Your task to perform on an android device: turn off notifications settings in the gmail app Image 0: 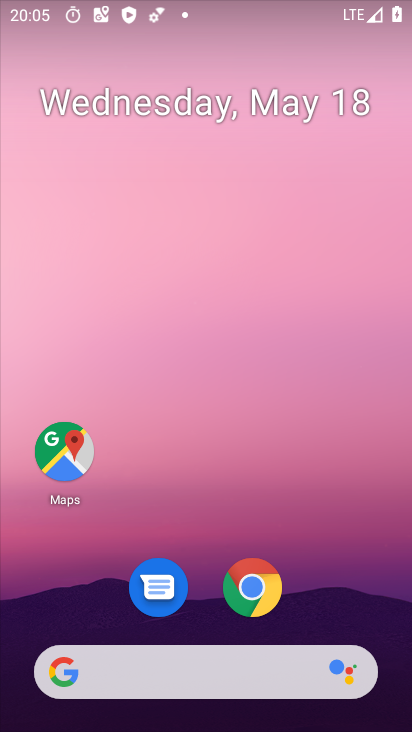
Step 0: drag from (207, 619) to (258, 31)
Your task to perform on an android device: turn off notifications settings in the gmail app Image 1: 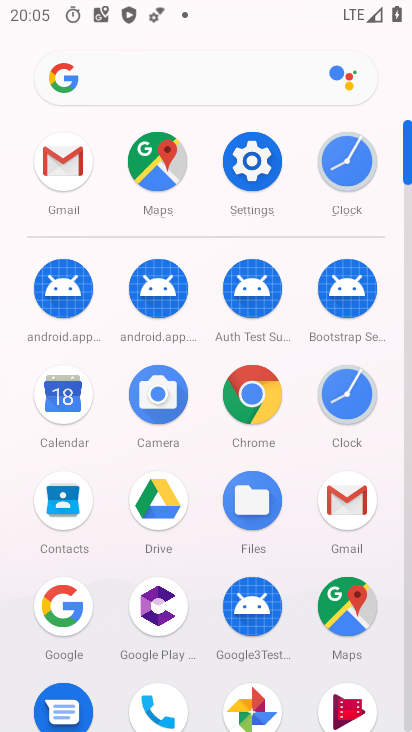
Step 1: click (64, 175)
Your task to perform on an android device: turn off notifications settings in the gmail app Image 2: 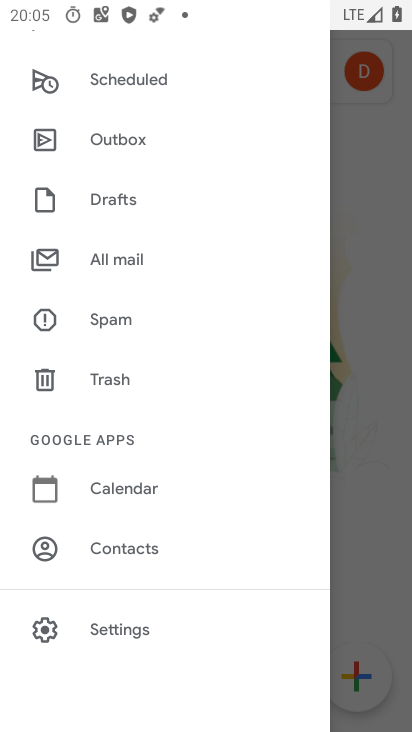
Step 2: click (127, 615)
Your task to perform on an android device: turn off notifications settings in the gmail app Image 3: 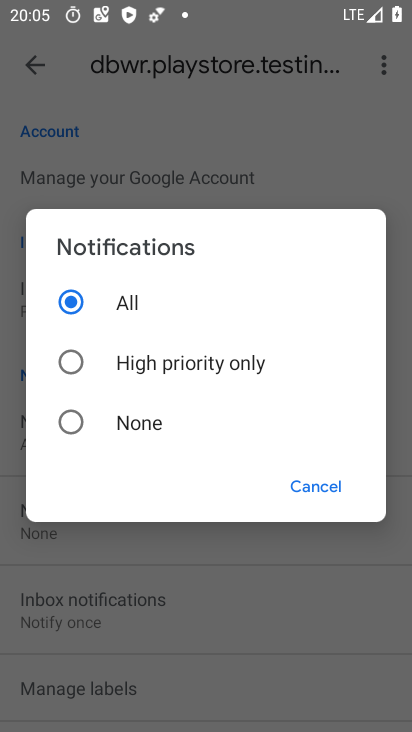
Step 3: click (319, 480)
Your task to perform on an android device: turn off notifications settings in the gmail app Image 4: 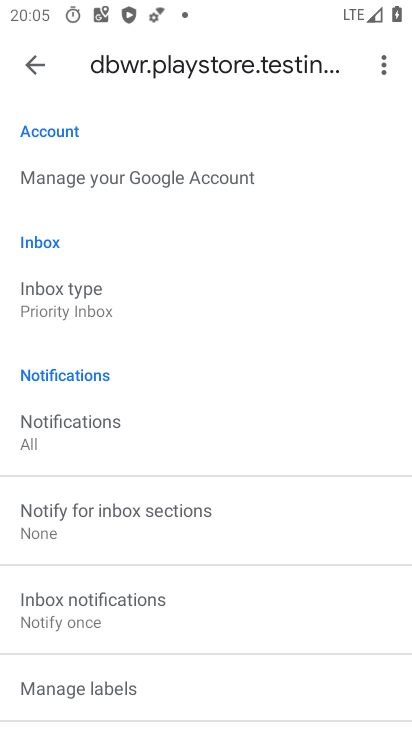
Step 4: click (107, 414)
Your task to perform on an android device: turn off notifications settings in the gmail app Image 5: 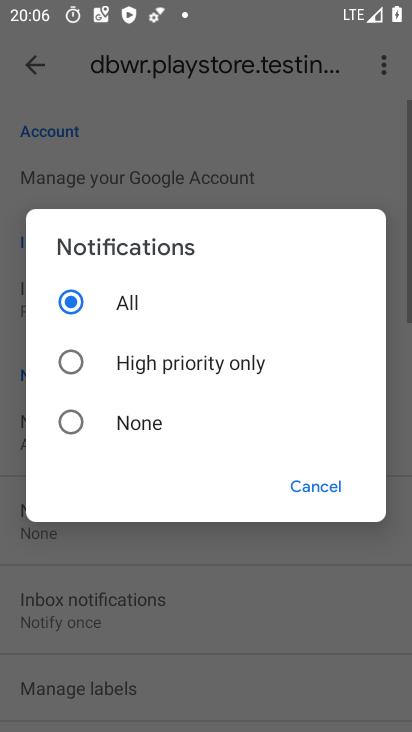
Step 5: click (111, 424)
Your task to perform on an android device: turn off notifications settings in the gmail app Image 6: 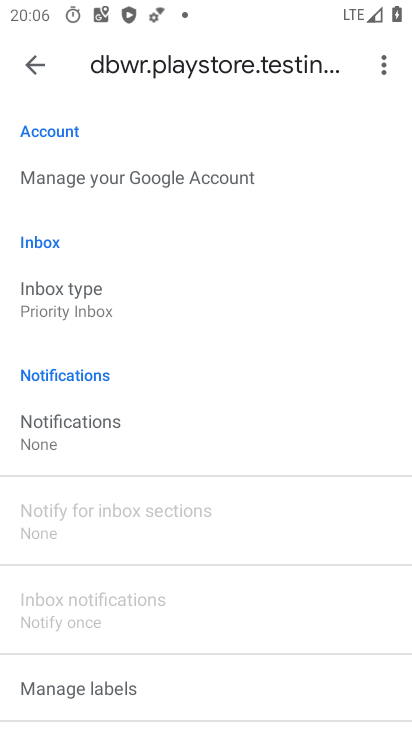
Step 6: task complete